Your task to perform on an android device: Open Yahoo.com Image 0: 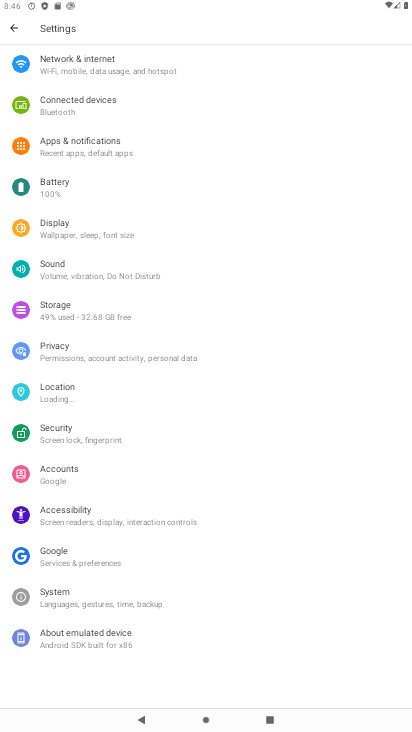
Step 0: press home button
Your task to perform on an android device: Open Yahoo.com Image 1: 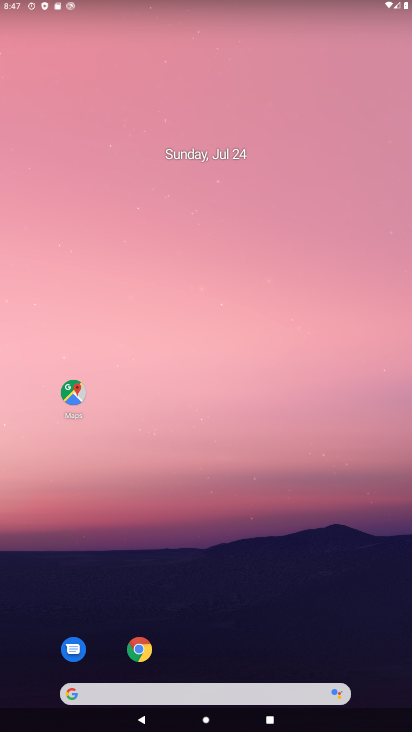
Step 1: click (100, 694)
Your task to perform on an android device: Open Yahoo.com Image 2: 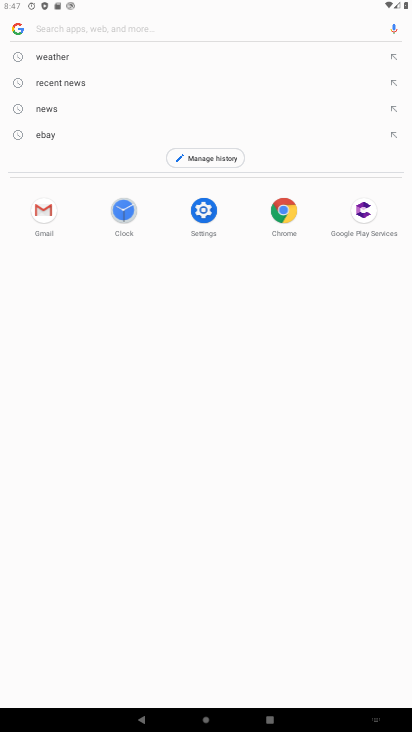
Step 2: type "Yahoo.com"
Your task to perform on an android device: Open Yahoo.com Image 3: 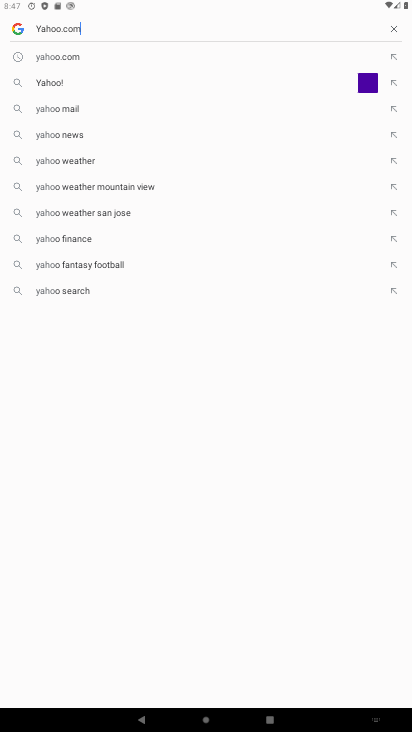
Step 3: type ""
Your task to perform on an android device: Open Yahoo.com Image 4: 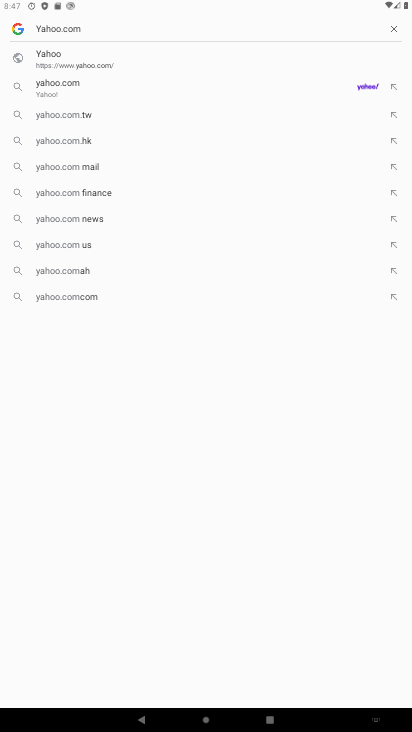
Step 4: click (47, 53)
Your task to perform on an android device: Open Yahoo.com Image 5: 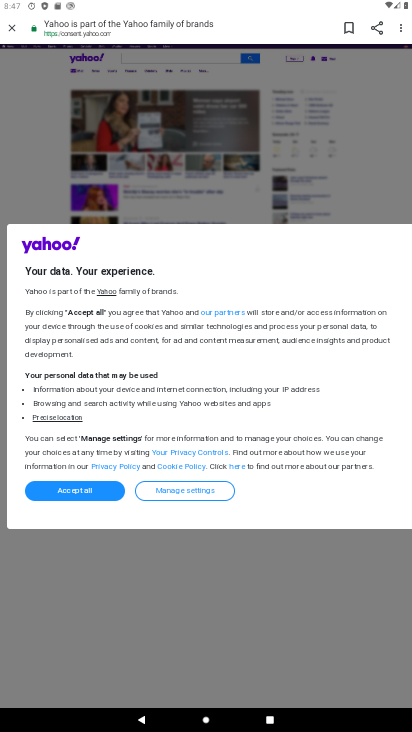
Step 5: task complete